Your task to perform on an android device: turn on notifications settings in the gmail app Image 0: 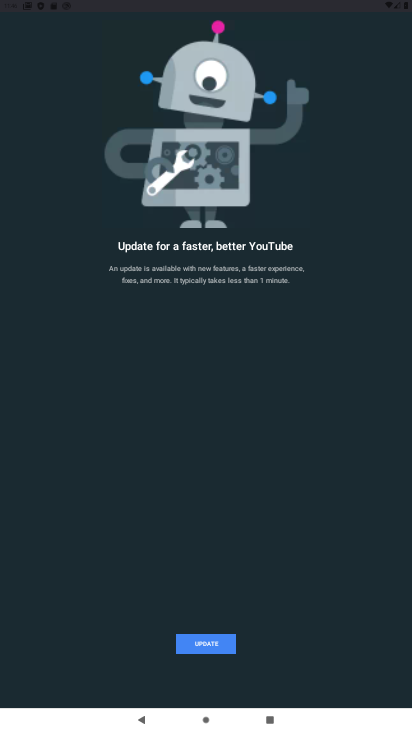
Step 0: press home button
Your task to perform on an android device: turn on notifications settings in the gmail app Image 1: 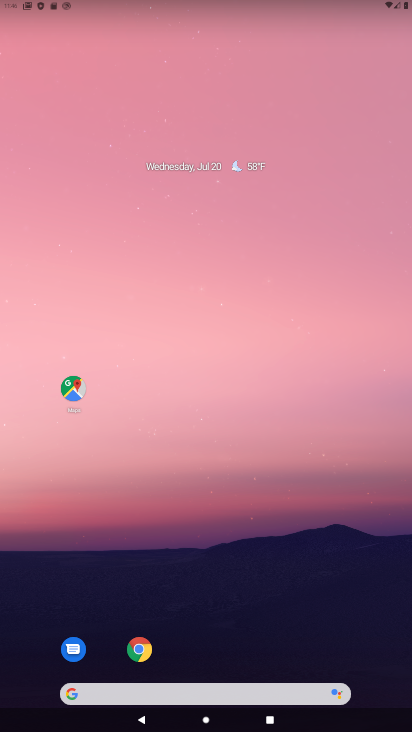
Step 1: drag from (183, 657) to (207, 118)
Your task to perform on an android device: turn on notifications settings in the gmail app Image 2: 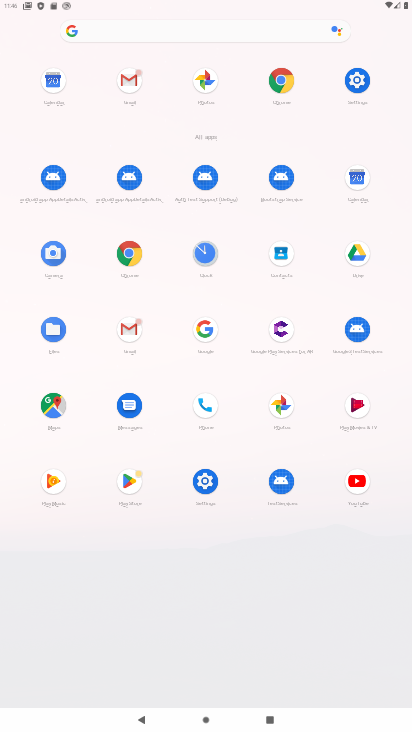
Step 2: click (123, 330)
Your task to perform on an android device: turn on notifications settings in the gmail app Image 3: 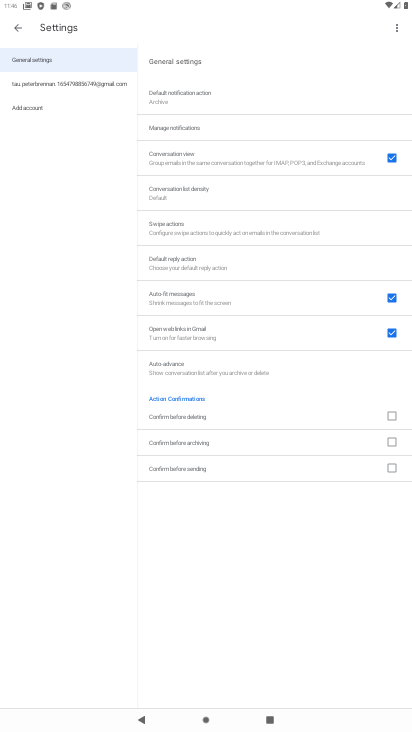
Step 3: click (69, 91)
Your task to perform on an android device: turn on notifications settings in the gmail app Image 4: 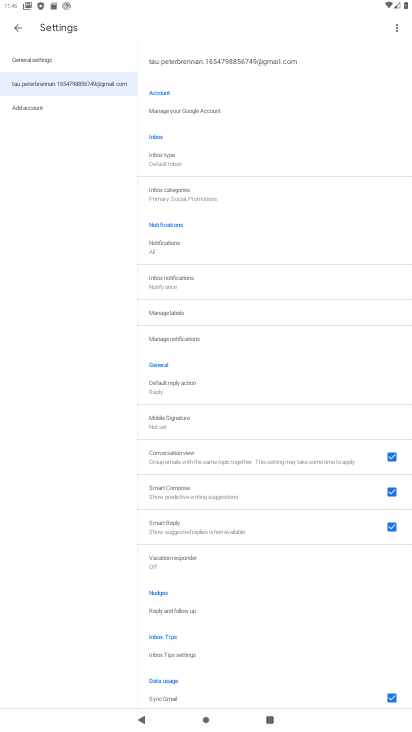
Step 4: click (205, 249)
Your task to perform on an android device: turn on notifications settings in the gmail app Image 5: 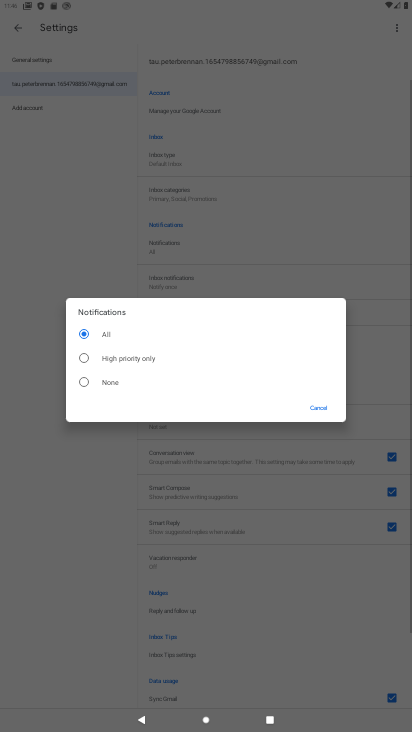
Step 5: task complete